Your task to perform on an android device: remove spam from my inbox in the gmail app Image 0: 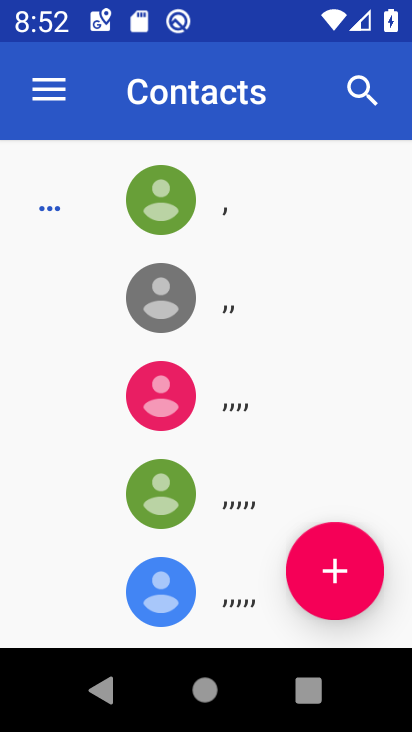
Step 0: press home button
Your task to perform on an android device: remove spam from my inbox in the gmail app Image 1: 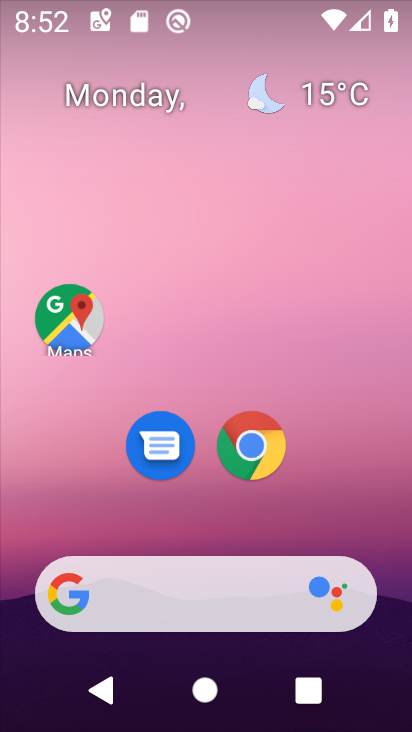
Step 1: drag from (204, 532) to (198, 51)
Your task to perform on an android device: remove spam from my inbox in the gmail app Image 2: 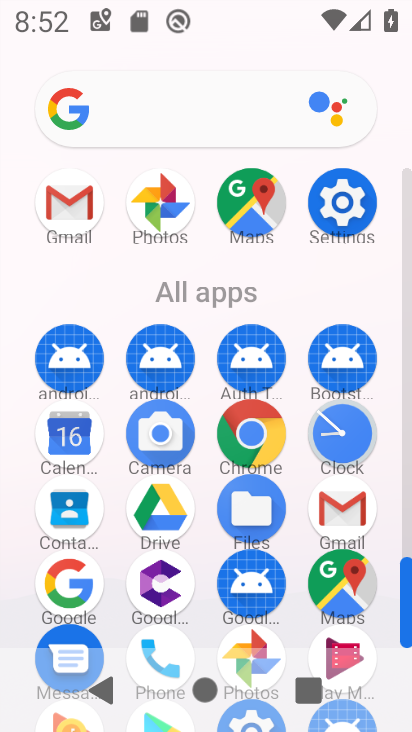
Step 2: click (63, 191)
Your task to perform on an android device: remove spam from my inbox in the gmail app Image 3: 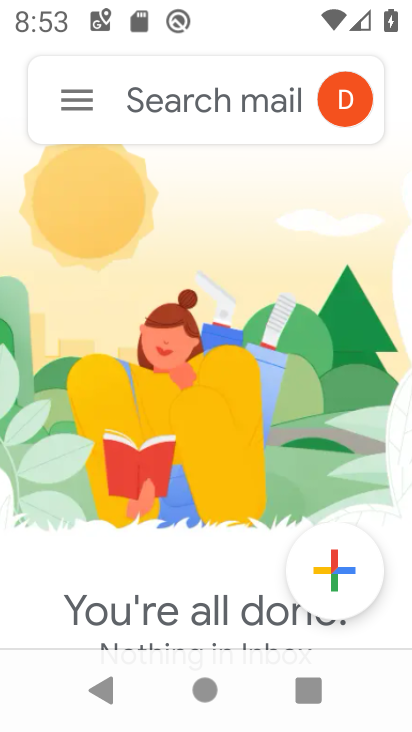
Step 3: click (76, 95)
Your task to perform on an android device: remove spam from my inbox in the gmail app Image 4: 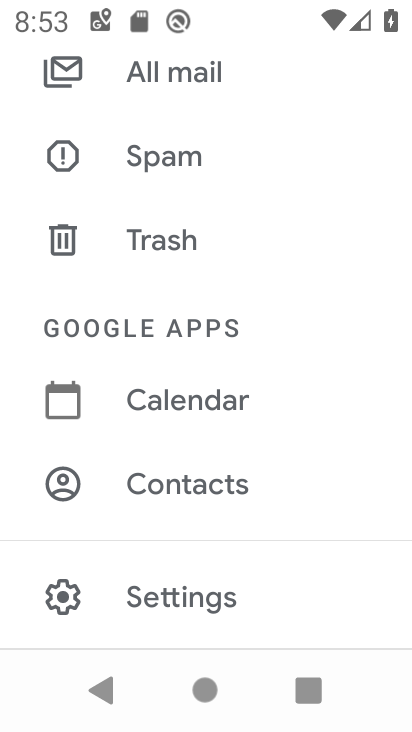
Step 4: click (102, 157)
Your task to perform on an android device: remove spam from my inbox in the gmail app Image 5: 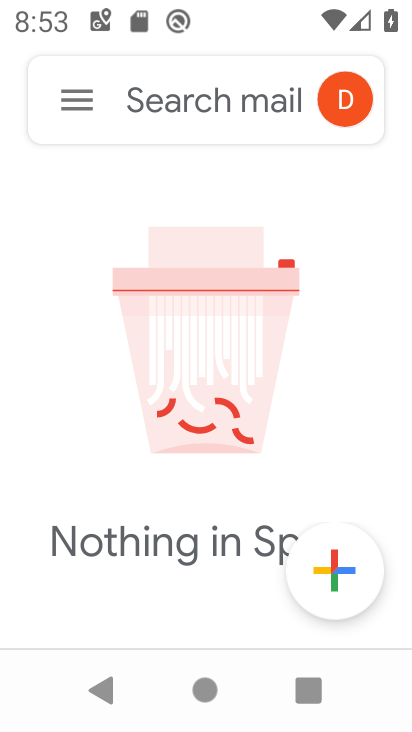
Step 5: task complete